Your task to perform on an android device: Go to Yahoo.com Image 0: 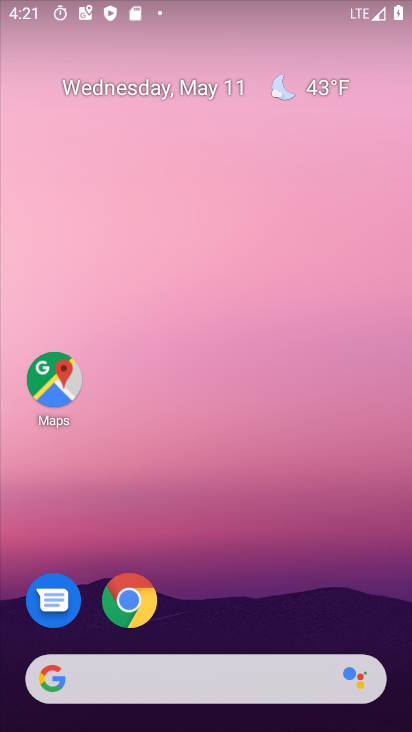
Step 0: click (134, 601)
Your task to perform on an android device: Go to Yahoo.com Image 1: 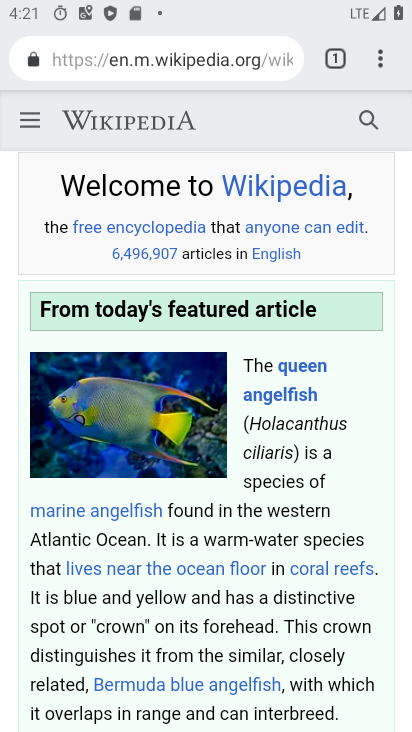
Step 1: click (129, 58)
Your task to perform on an android device: Go to Yahoo.com Image 2: 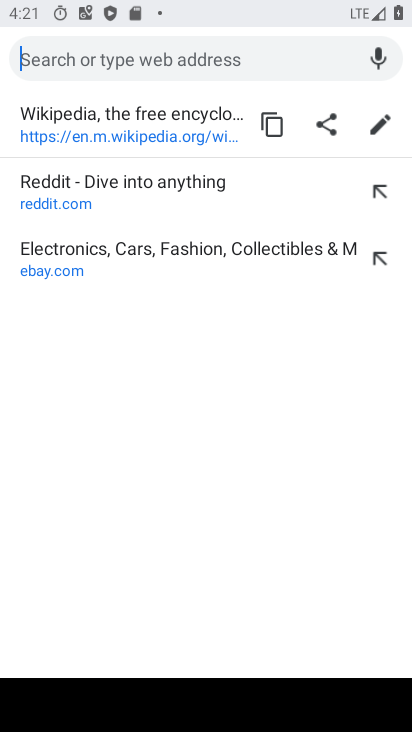
Step 2: type "yahoo.com"
Your task to perform on an android device: Go to Yahoo.com Image 3: 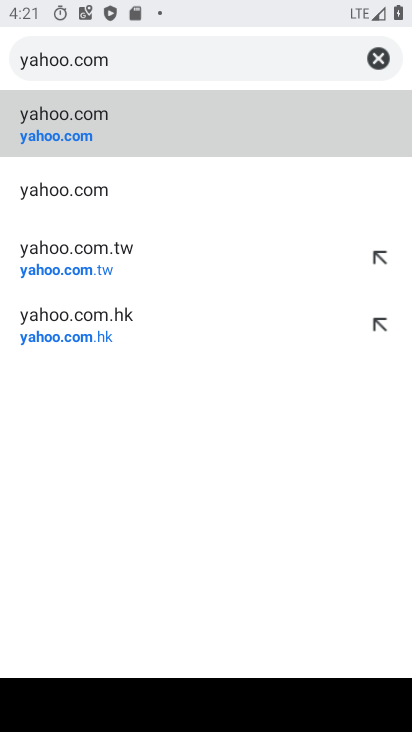
Step 3: click (69, 125)
Your task to perform on an android device: Go to Yahoo.com Image 4: 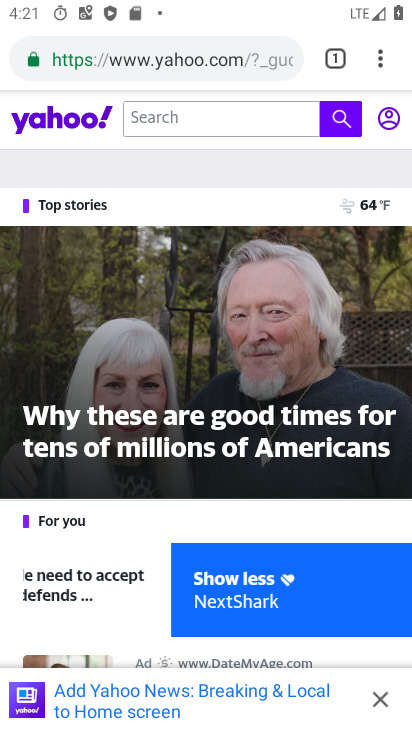
Step 4: task complete